Your task to perform on an android device: turn off sleep mode Image 0: 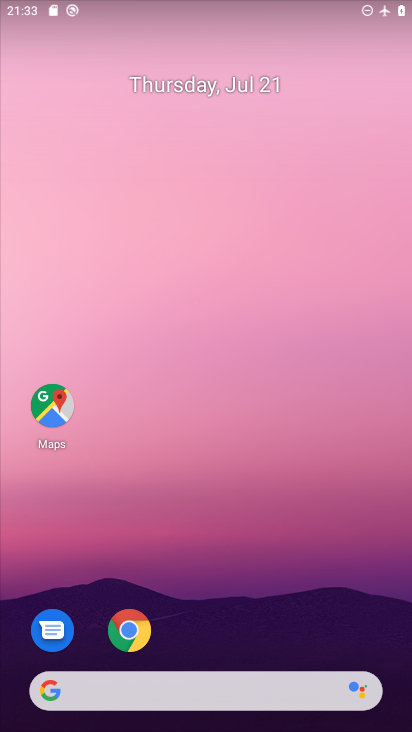
Step 0: drag from (373, 569) to (258, 181)
Your task to perform on an android device: turn off sleep mode Image 1: 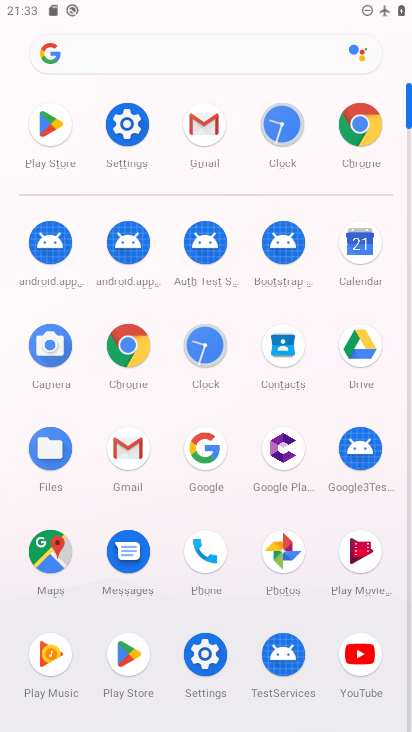
Step 1: click (134, 120)
Your task to perform on an android device: turn off sleep mode Image 2: 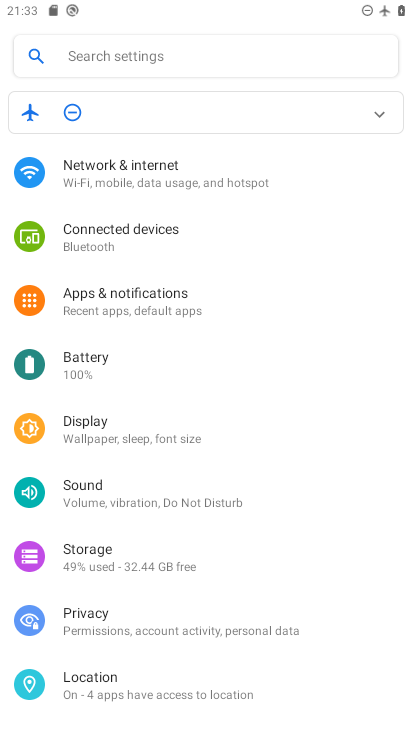
Step 2: click (139, 434)
Your task to perform on an android device: turn off sleep mode Image 3: 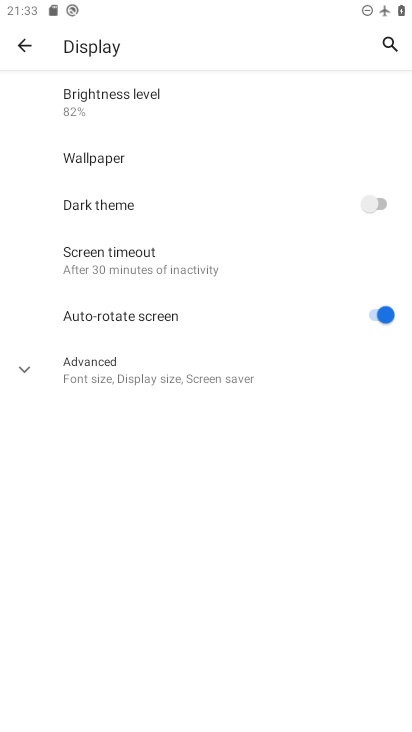
Step 3: click (139, 261)
Your task to perform on an android device: turn off sleep mode Image 4: 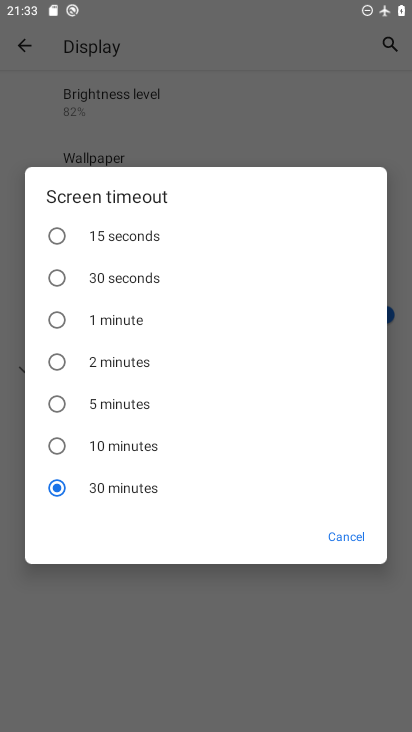
Step 4: task complete